Your task to perform on an android device: create a new album in the google photos Image 0: 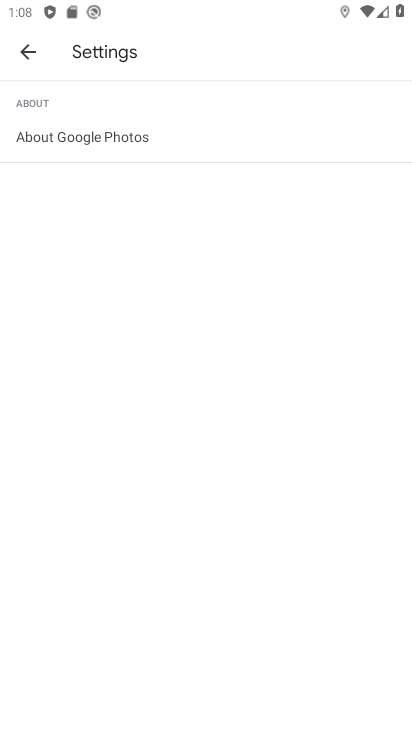
Step 0: press home button
Your task to perform on an android device: create a new album in the google photos Image 1: 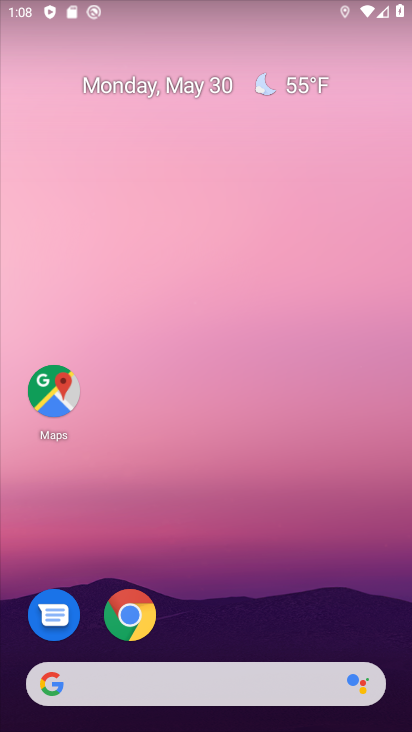
Step 1: drag from (152, 636) to (287, 81)
Your task to perform on an android device: create a new album in the google photos Image 2: 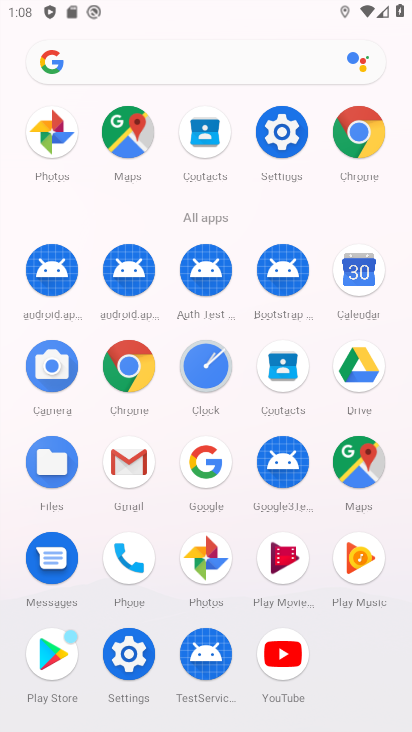
Step 2: click (214, 562)
Your task to perform on an android device: create a new album in the google photos Image 3: 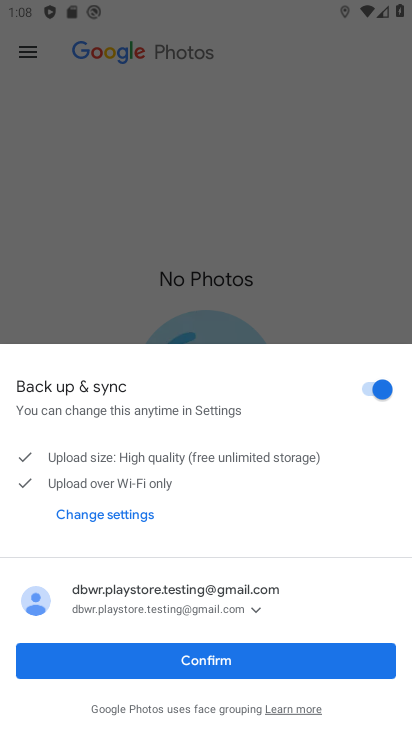
Step 3: click (214, 660)
Your task to perform on an android device: create a new album in the google photos Image 4: 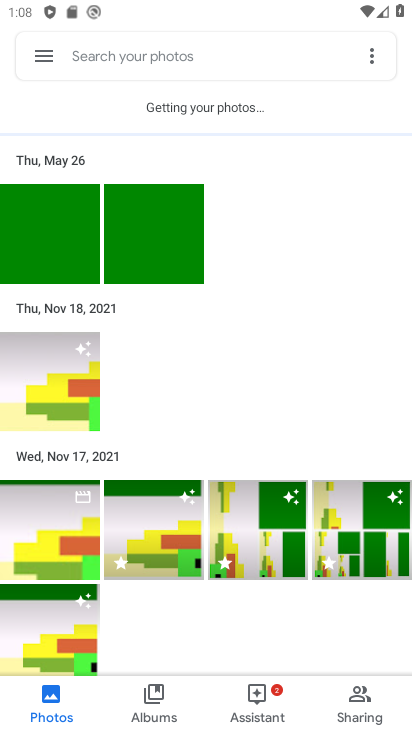
Step 4: click (51, 473)
Your task to perform on an android device: create a new album in the google photos Image 5: 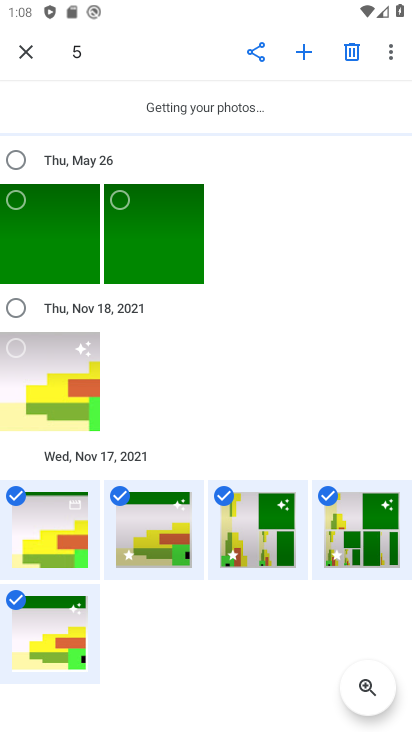
Step 5: click (305, 67)
Your task to perform on an android device: create a new album in the google photos Image 6: 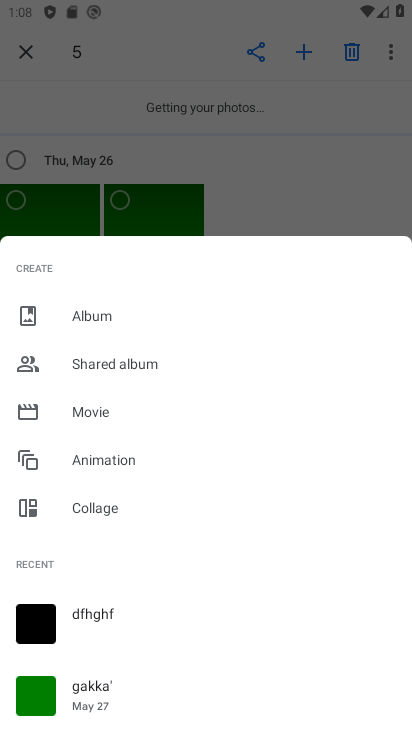
Step 6: click (138, 320)
Your task to perform on an android device: create a new album in the google photos Image 7: 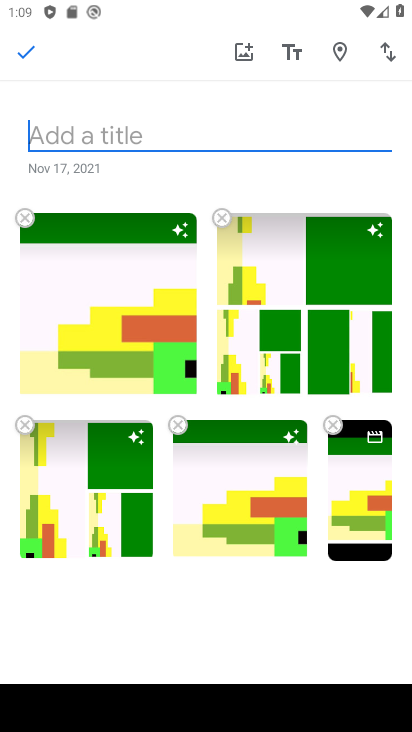
Step 7: type "piccccccccccs"
Your task to perform on an android device: create a new album in the google photos Image 8: 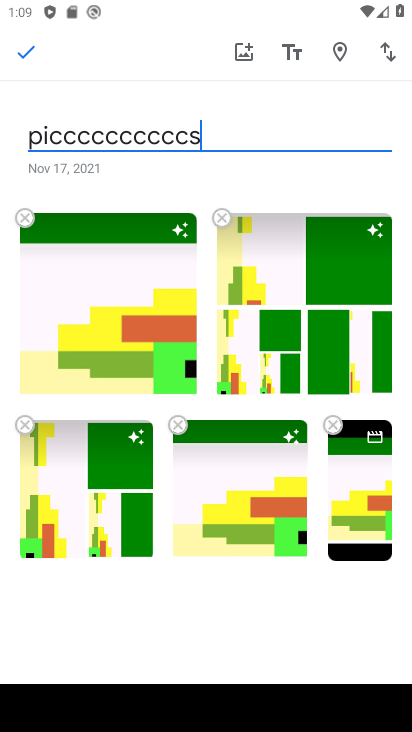
Step 8: click (16, 60)
Your task to perform on an android device: create a new album in the google photos Image 9: 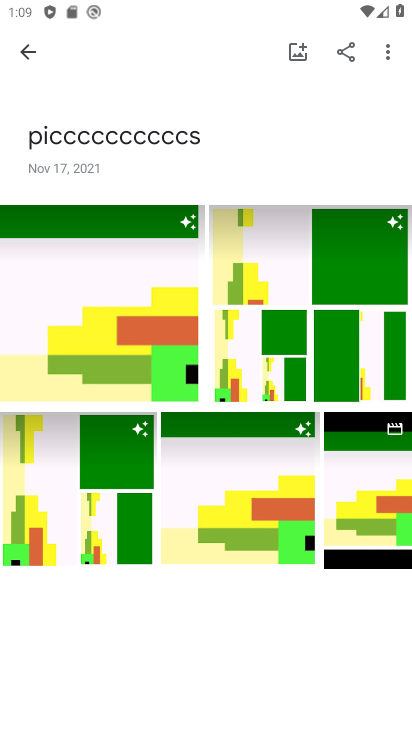
Step 9: task complete